Your task to perform on an android device: turn on priority inbox in the gmail app Image 0: 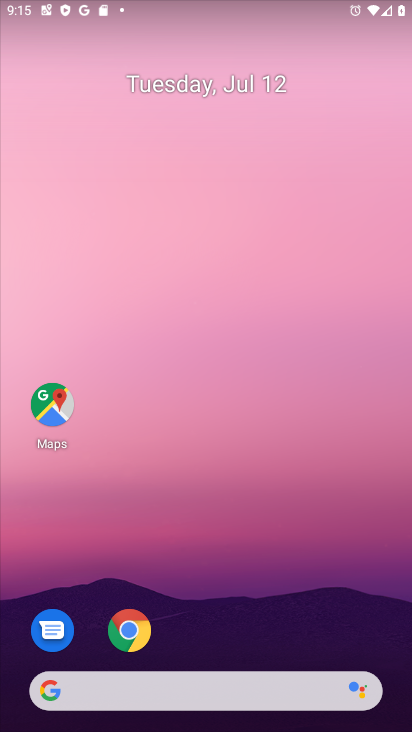
Step 0: drag from (252, 623) to (219, 122)
Your task to perform on an android device: turn on priority inbox in the gmail app Image 1: 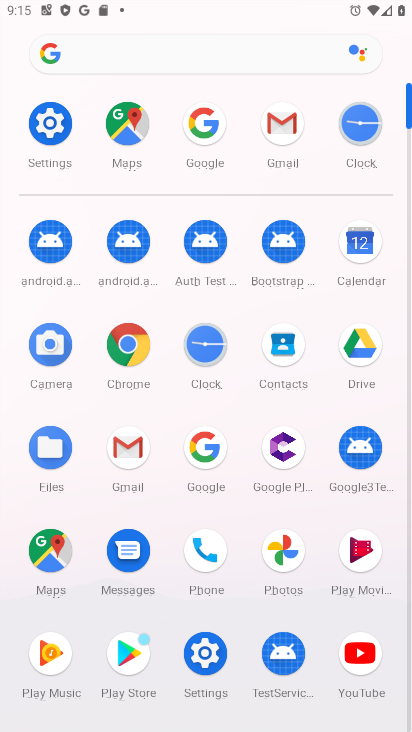
Step 1: click (282, 122)
Your task to perform on an android device: turn on priority inbox in the gmail app Image 2: 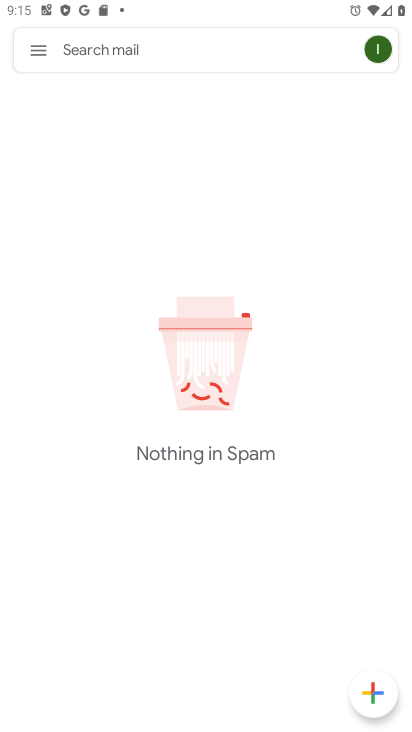
Step 2: click (44, 53)
Your task to perform on an android device: turn on priority inbox in the gmail app Image 3: 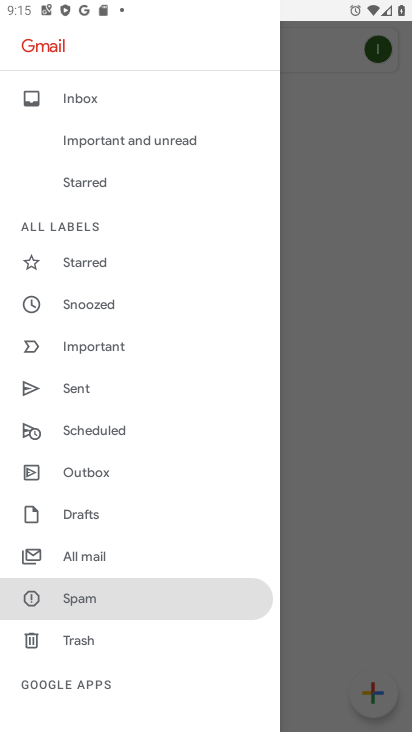
Step 3: drag from (94, 640) to (114, 247)
Your task to perform on an android device: turn on priority inbox in the gmail app Image 4: 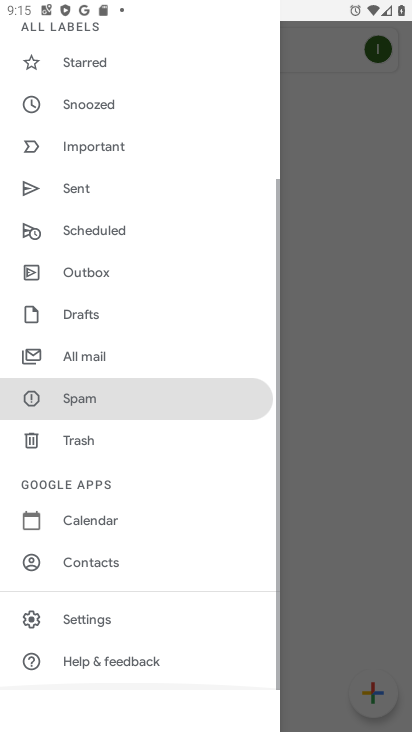
Step 4: click (85, 619)
Your task to perform on an android device: turn on priority inbox in the gmail app Image 5: 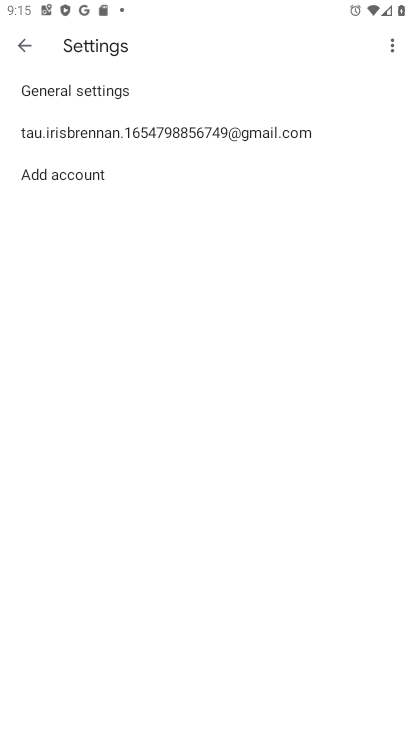
Step 5: click (120, 129)
Your task to perform on an android device: turn on priority inbox in the gmail app Image 6: 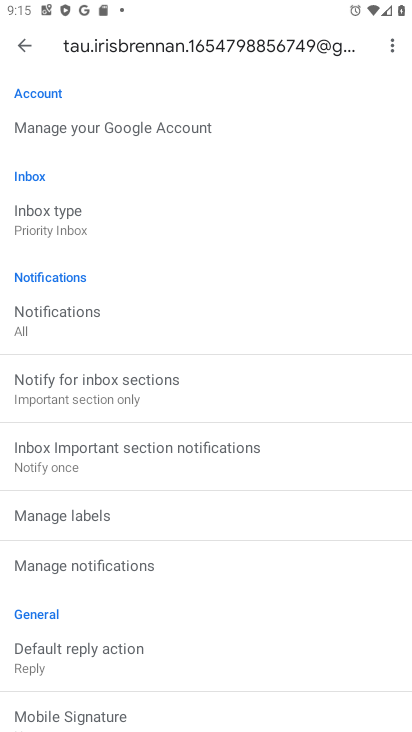
Step 6: task complete